Your task to perform on an android device: Add dell xps to the cart on ebay.com Image 0: 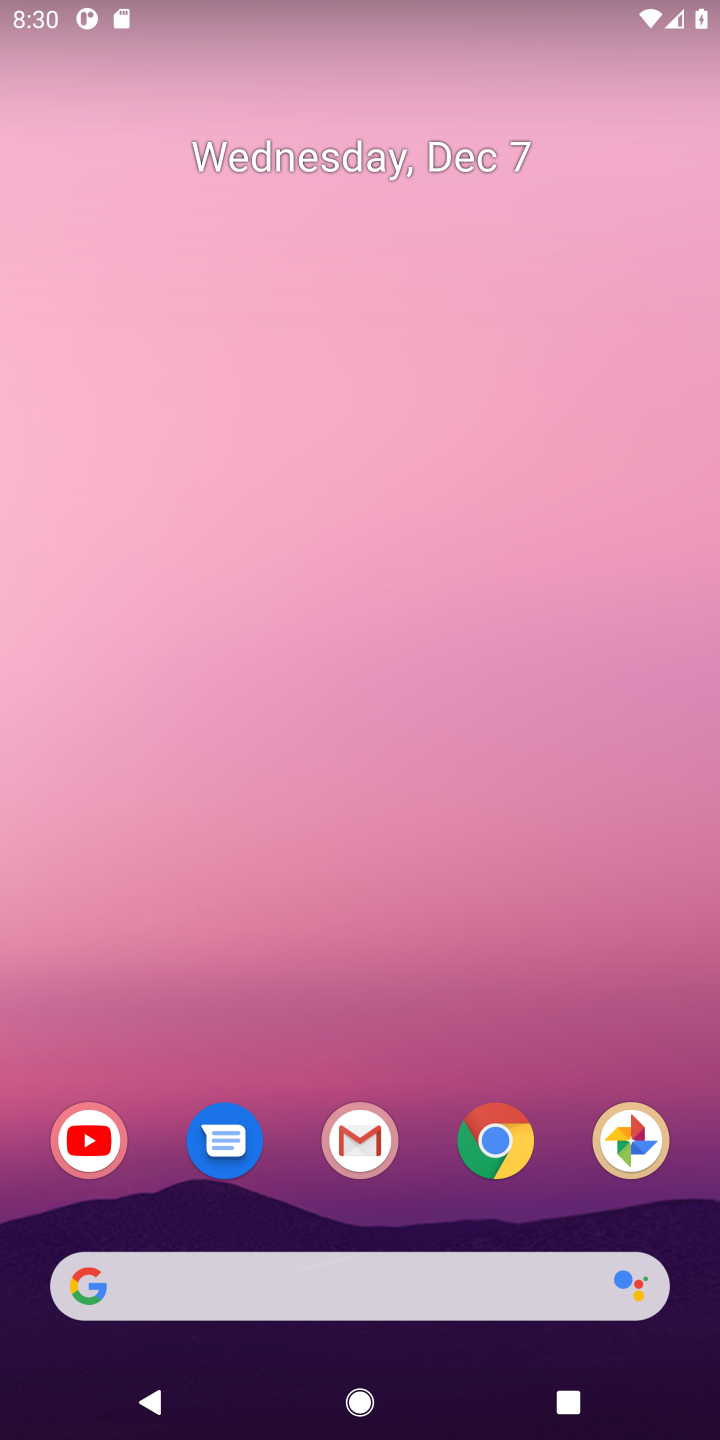
Step 0: press home button
Your task to perform on an android device: Add dell xps to the cart on ebay.com Image 1: 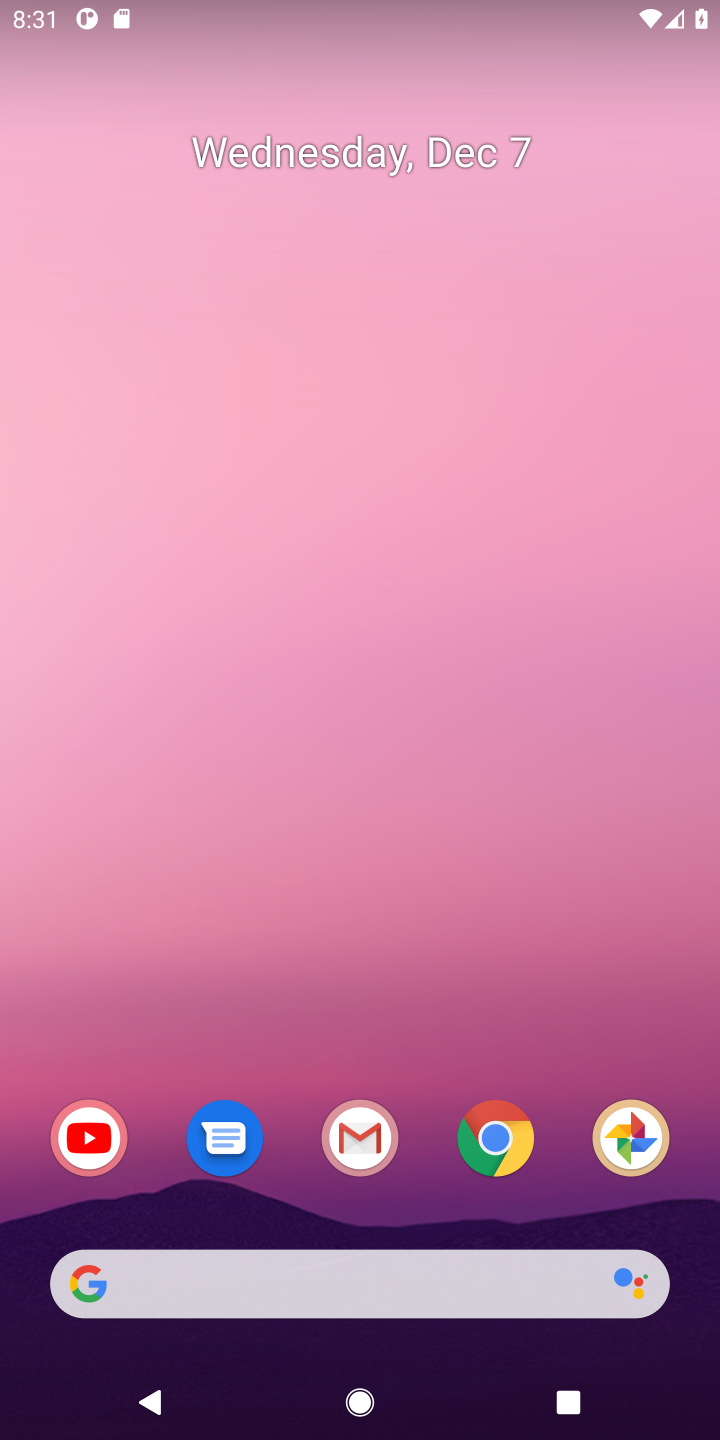
Step 1: click (143, 1278)
Your task to perform on an android device: Add dell xps to the cart on ebay.com Image 2: 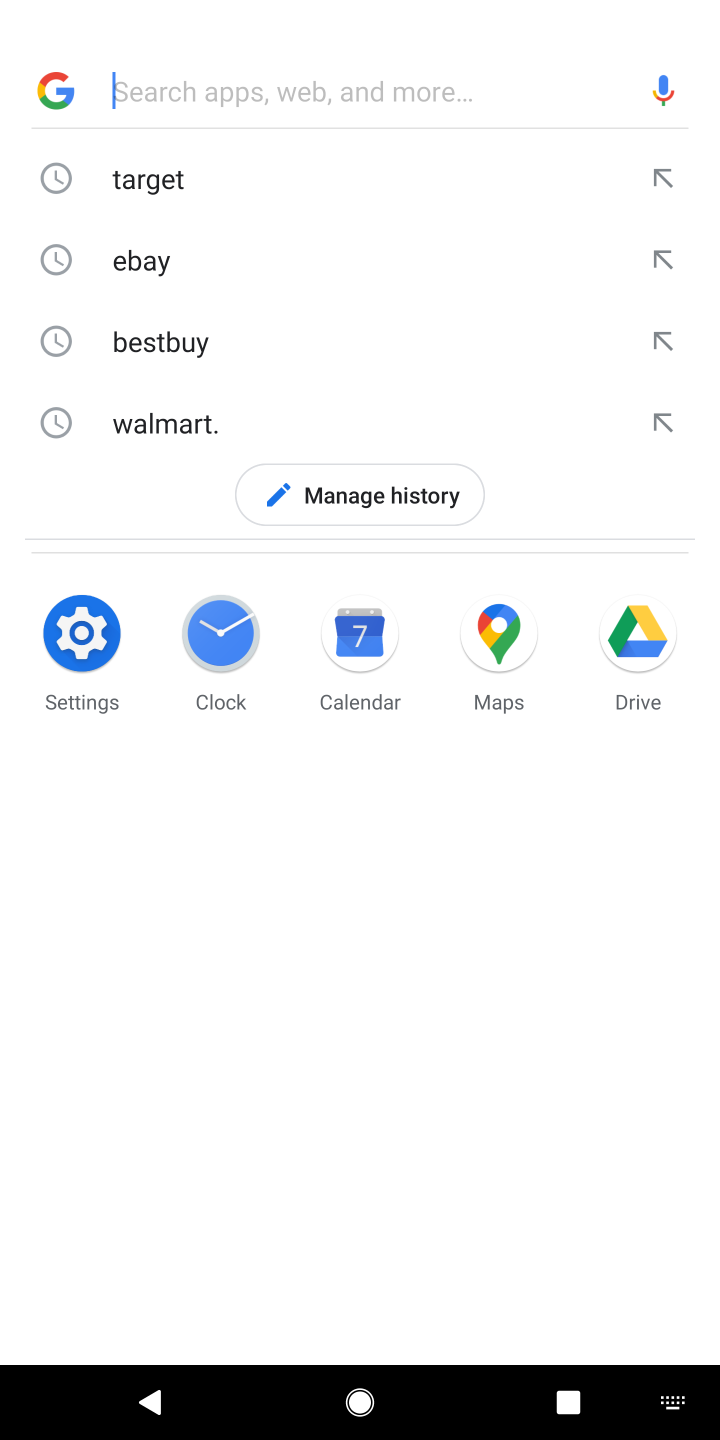
Step 2: type "ebay.com"
Your task to perform on an android device: Add dell xps to the cart on ebay.com Image 3: 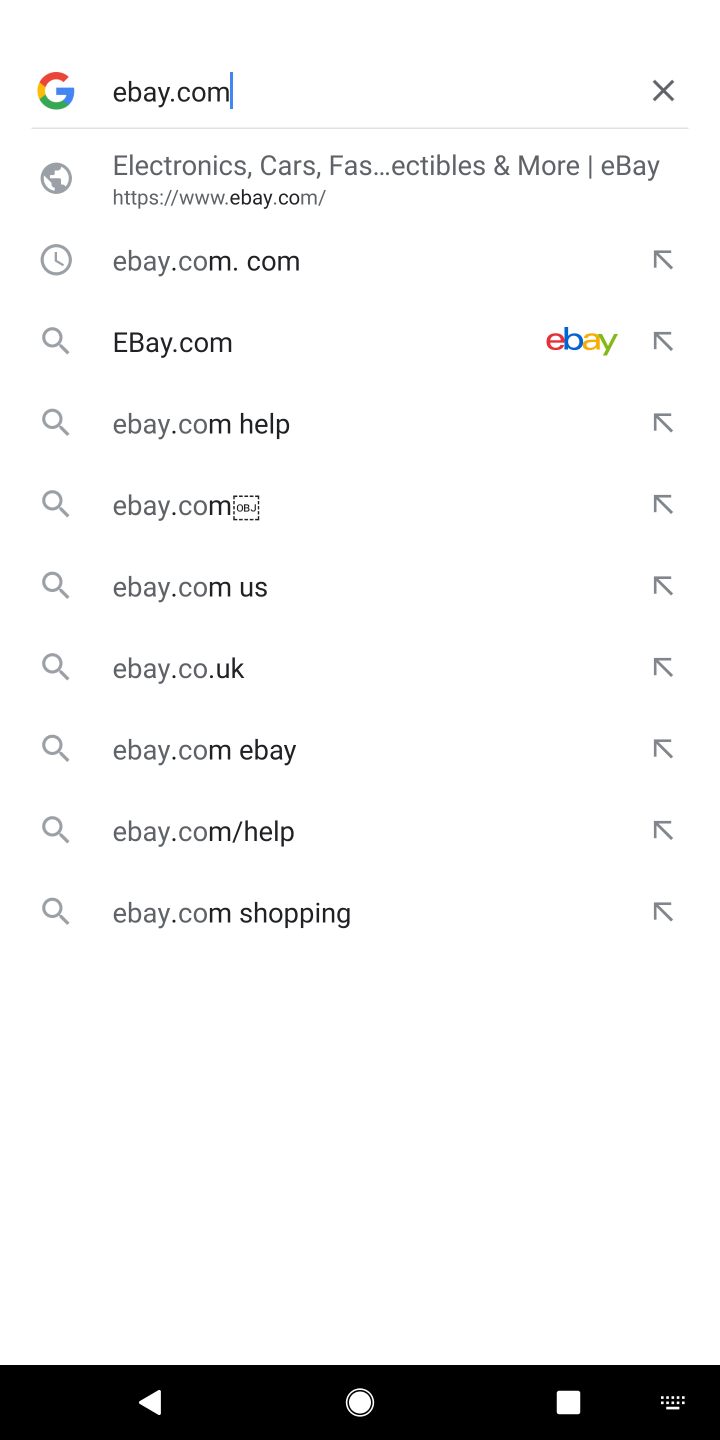
Step 3: press enter
Your task to perform on an android device: Add dell xps to the cart on ebay.com Image 4: 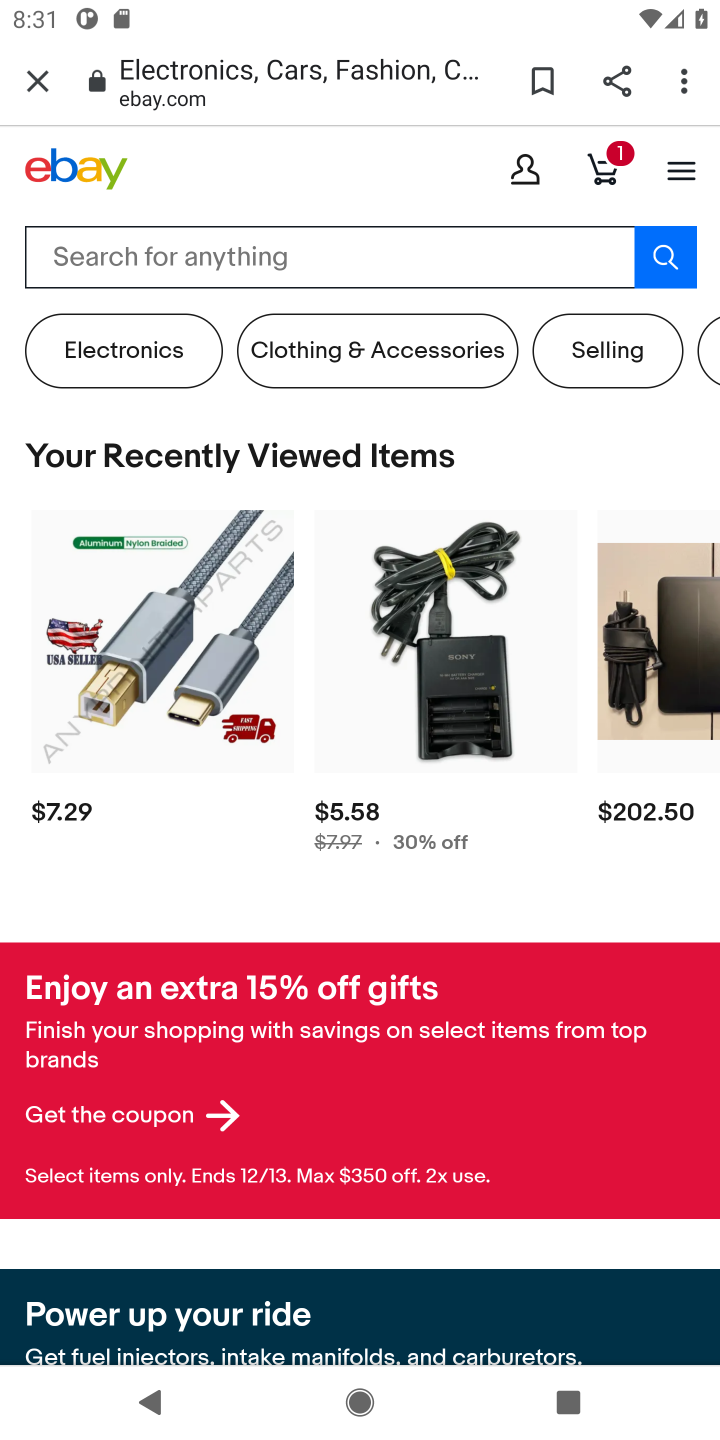
Step 4: click (229, 258)
Your task to perform on an android device: Add dell xps to the cart on ebay.com Image 5: 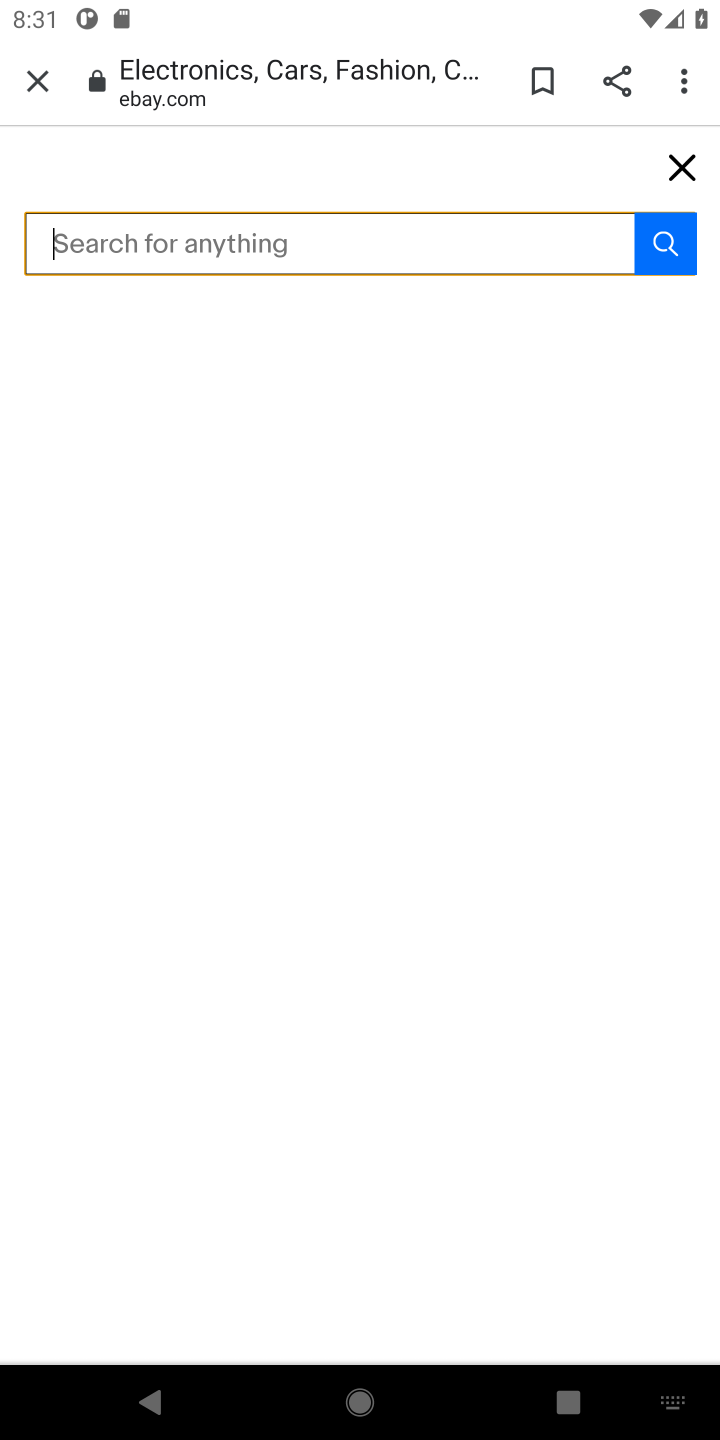
Step 5: press enter
Your task to perform on an android device: Add dell xps to the cart on ebay.com Image 6: 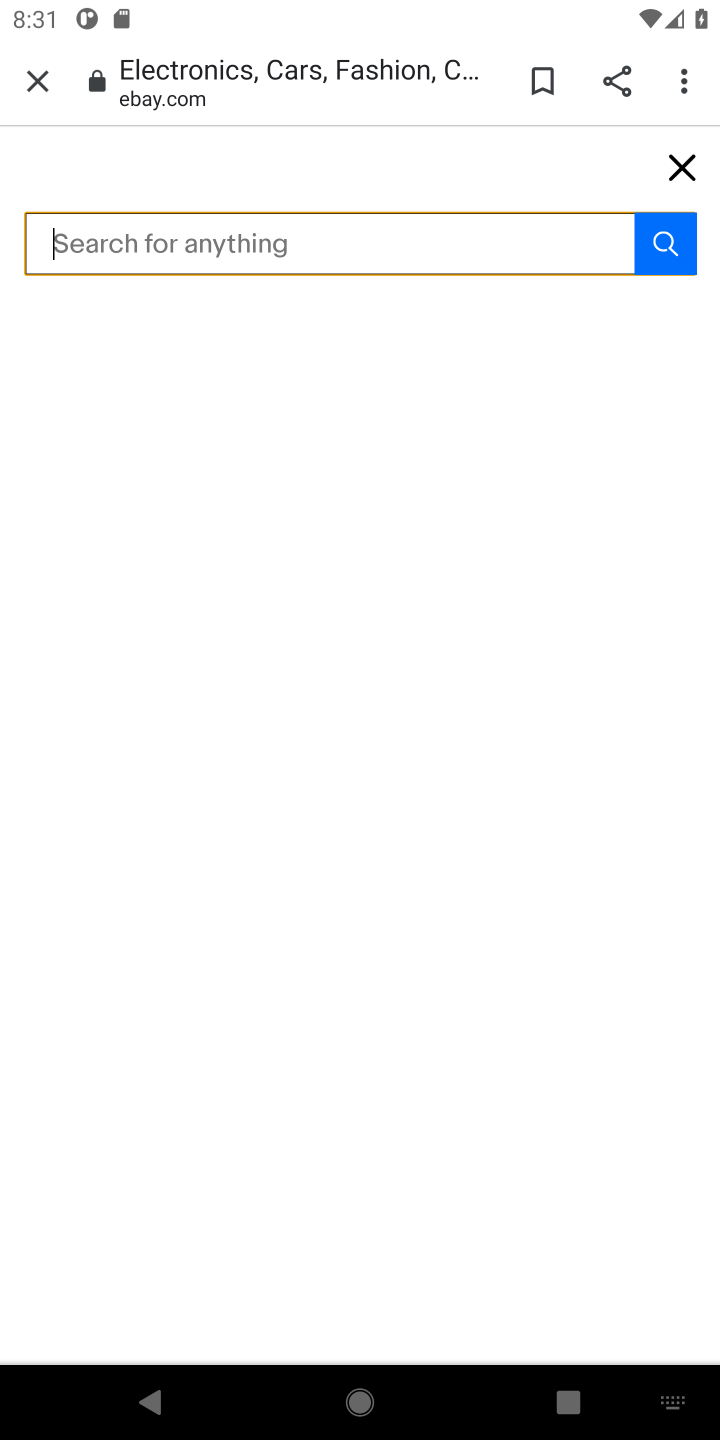
Step 6: type "dell xps"
Your task to perform on an android device: Add dell xps to the cart on ebay.com Image 7: 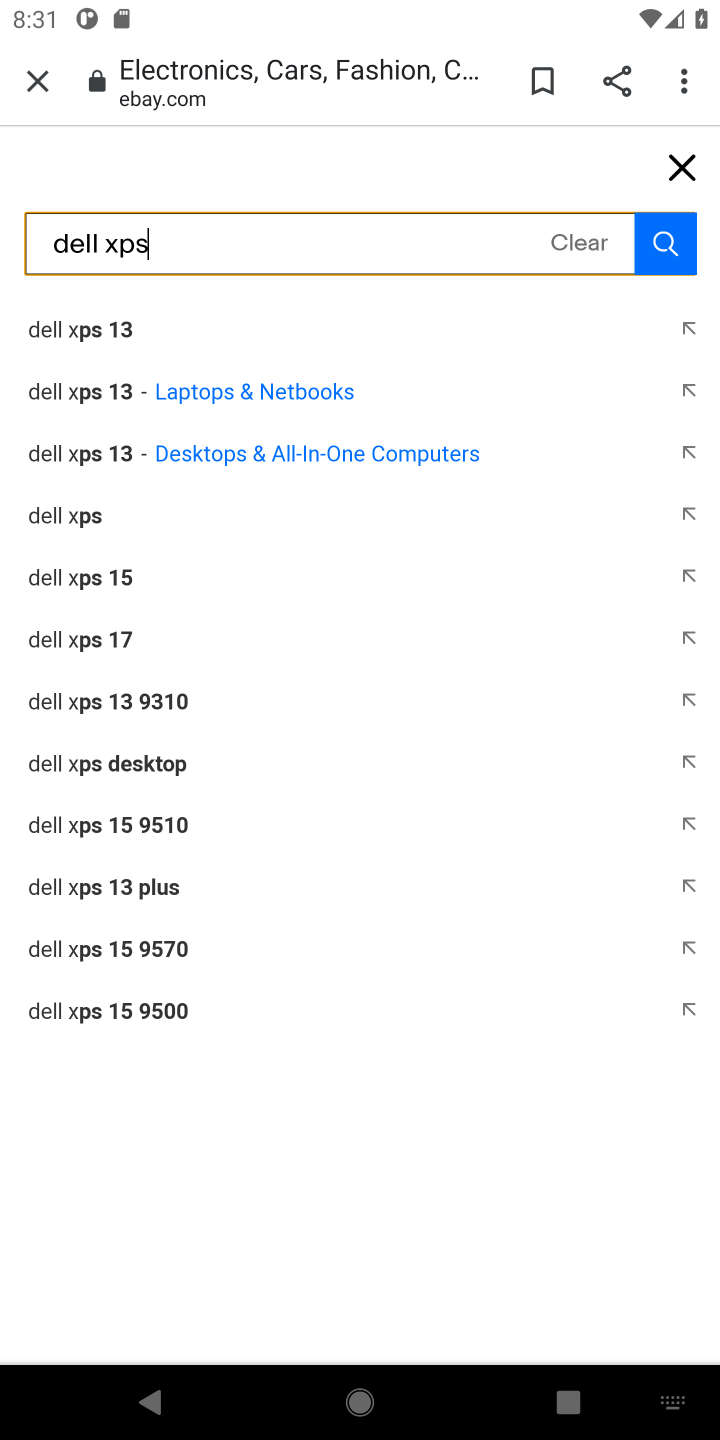
Step 7: press enter
Your task to perform on an android device: Add dell xps to the cart on ebay.com Image 8: 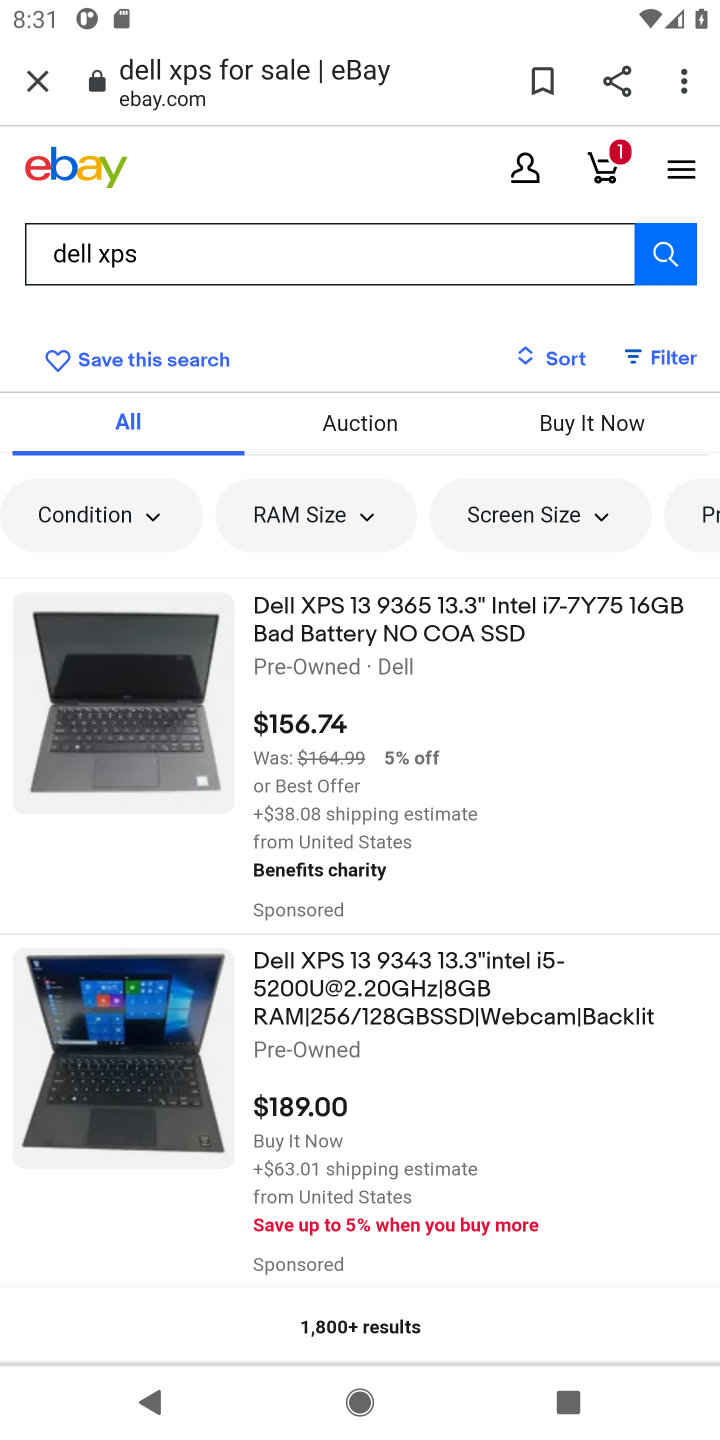
Step 8: drag from (540, 1148) to (542, 610)
Your task to perform on an android device: Add dell xps to the cart on ebay.com Image 9: 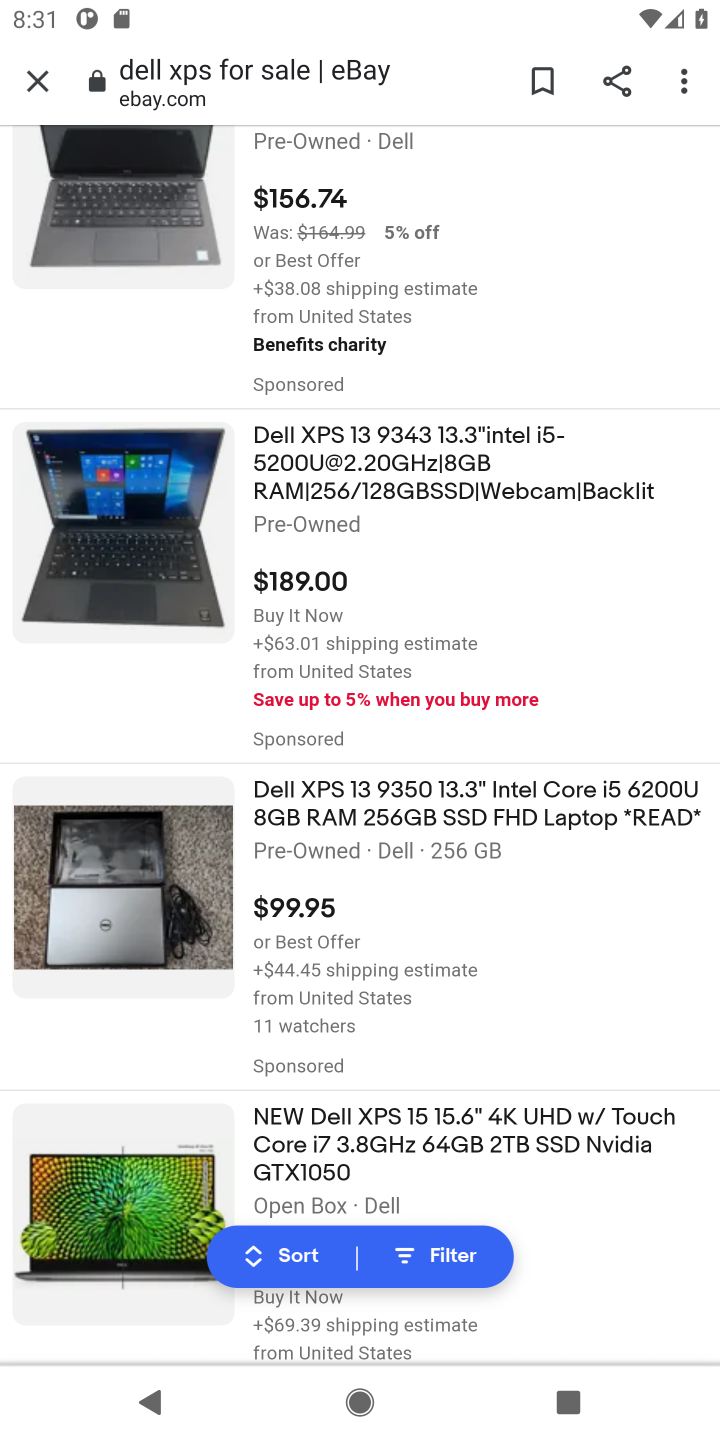
Step 9: drag from (609, 316) to (555, 1046)
Your task to perform on an android device: Add dell xps to the cart on ebay.com Image 10: 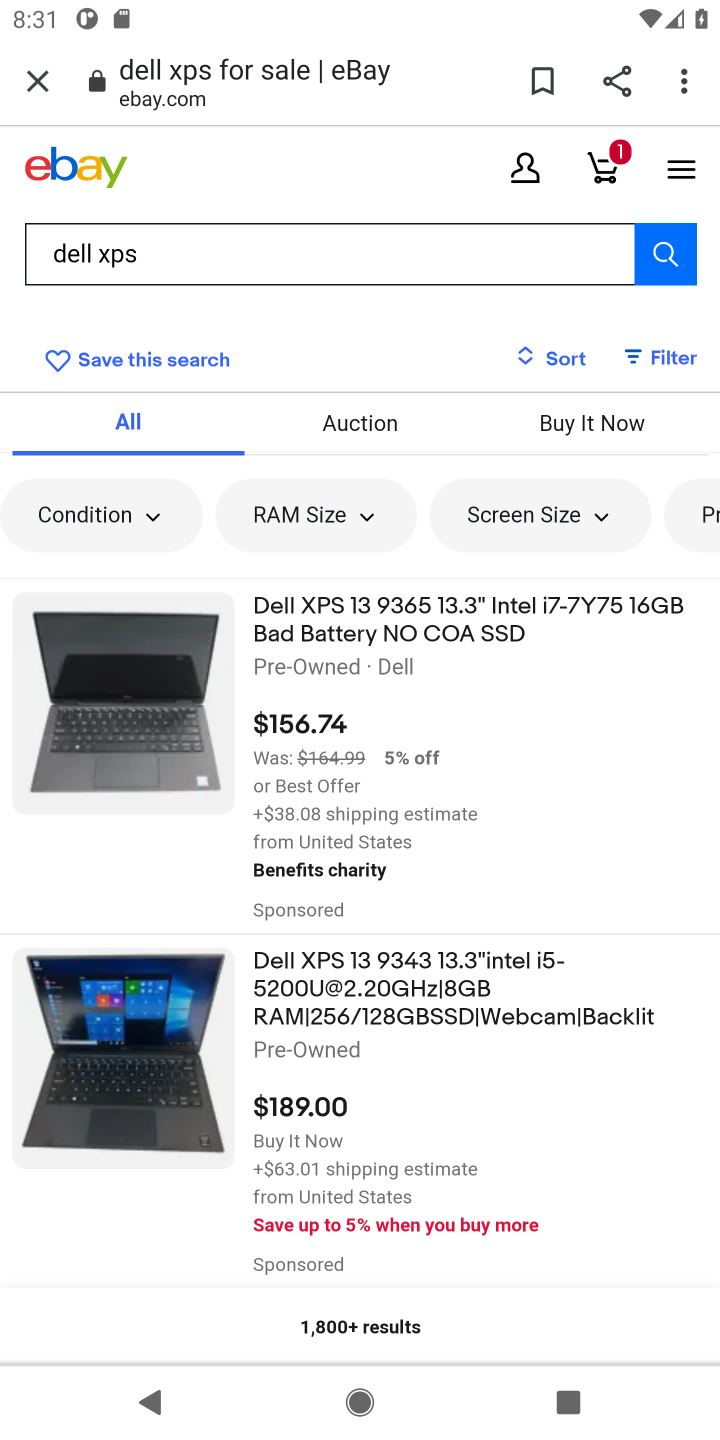
Step 10: click (362, 622)
Your task to perform on an android device: Add dell xps to the cart on ebay.com Image 11: 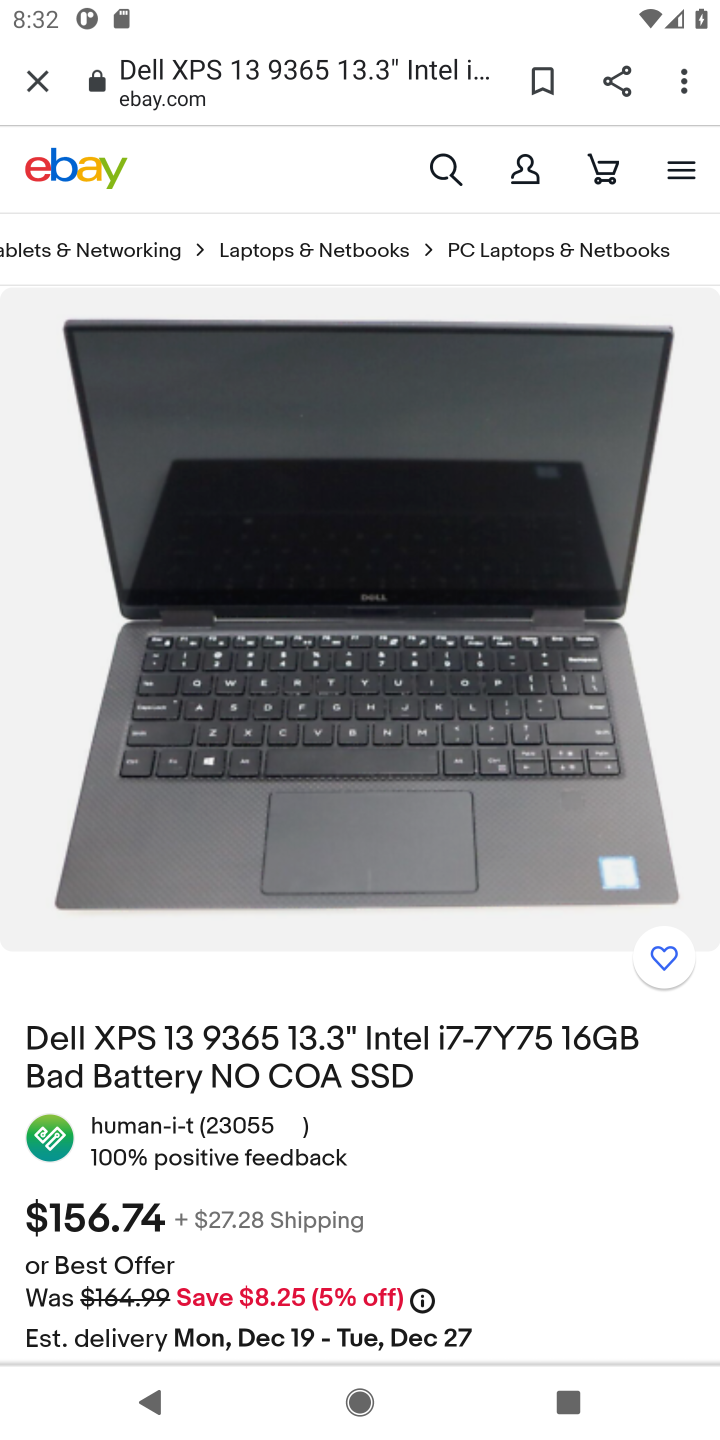
Step 11: drag from (500, 1129) to (450, 584)
Your task to perform on an android device: Add dell xps to the cart on ebay.com Image 12: 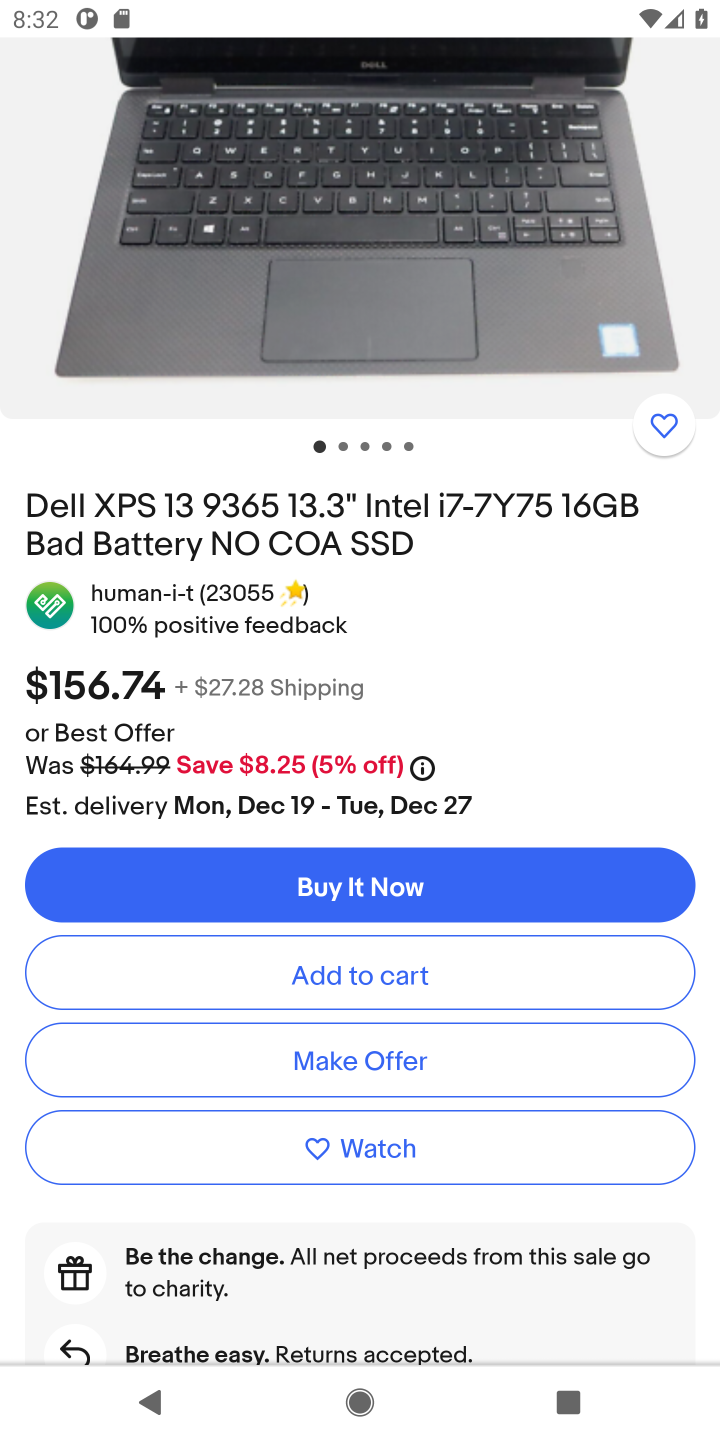
Step 12: click (332, 971)
Your task to perform on an android device: Add dell xps to the cart on ebay.com Image 13: 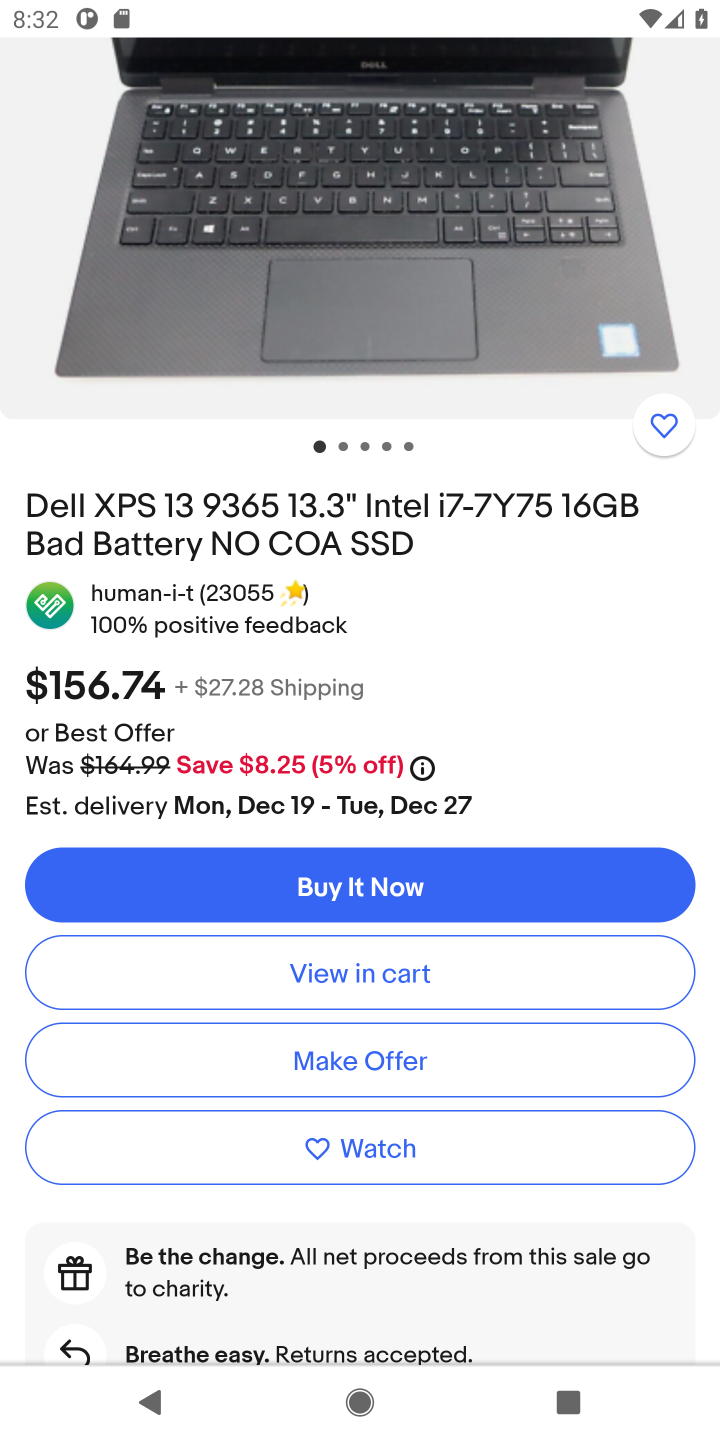
Step 13: task complete